Your task to perform on an android device: open chrome and create a bookmark for the current page Image 0: 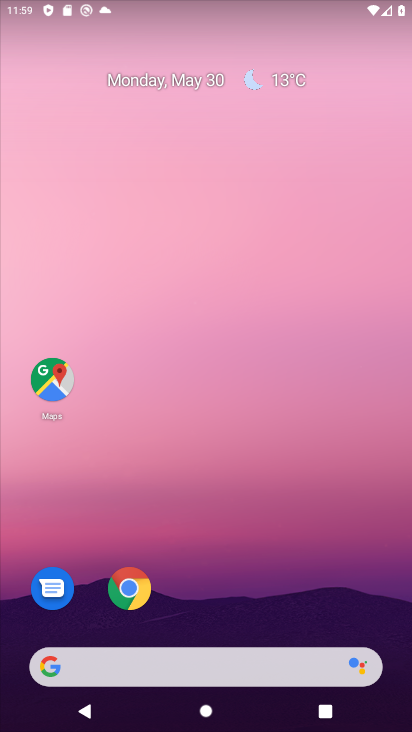
Step 0: click (131, 585)
Your task to perform on an android device: open chrome and create a bookmark for the current page Image 1: 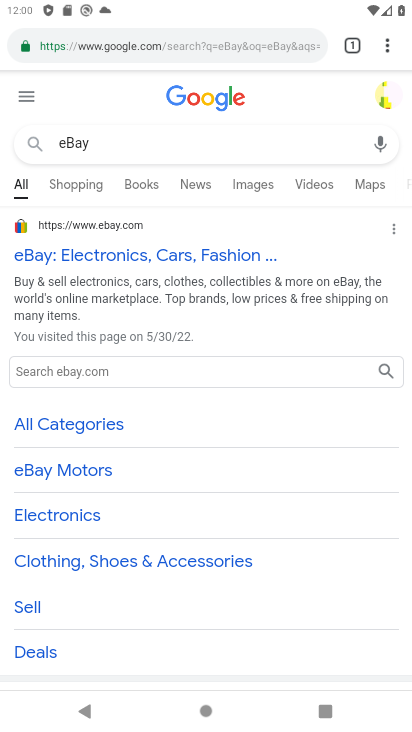
Step 1: click (383, 31)
Your task to perform on an android device: open chrome and create a bookmark for the current page Image 2: 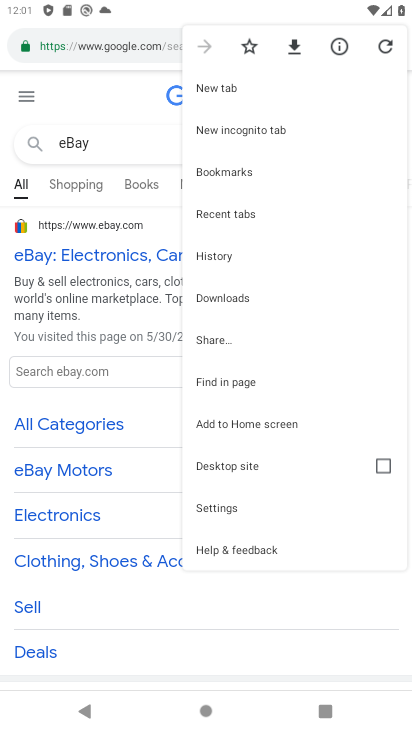
Step 2: click (226, 169)
Your task to perform on an android device: open chrome and create a bookmark for the current page Image 3: 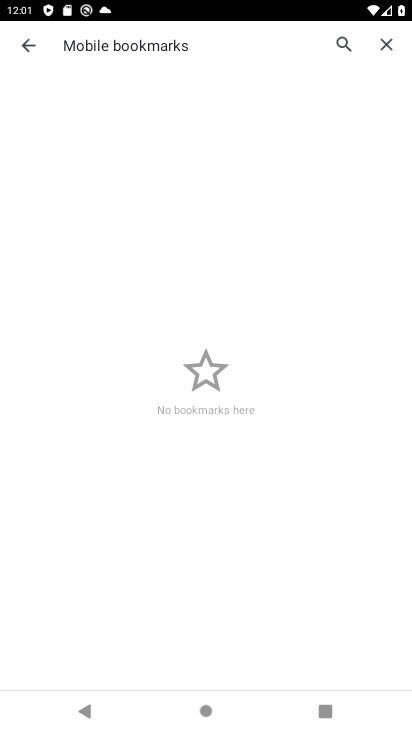
Step 3: click (29, 43)
Your task to perform on an android device: open chrome and create a bookmark for the current page Image 4: 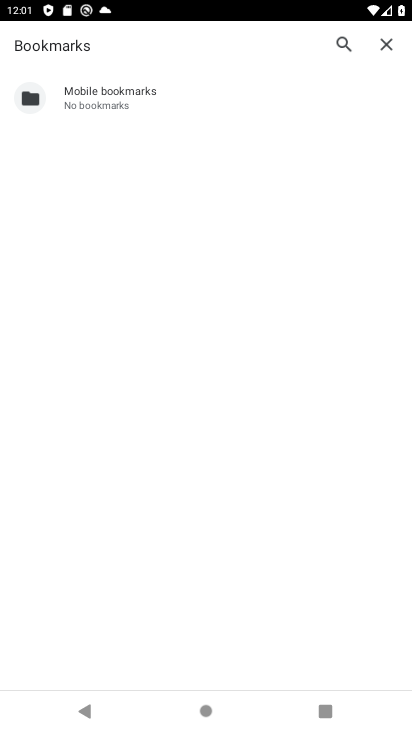
Step 4: press back button
Your task to perform on an android device: open chrome and create a bookmark for the current page Image 5: 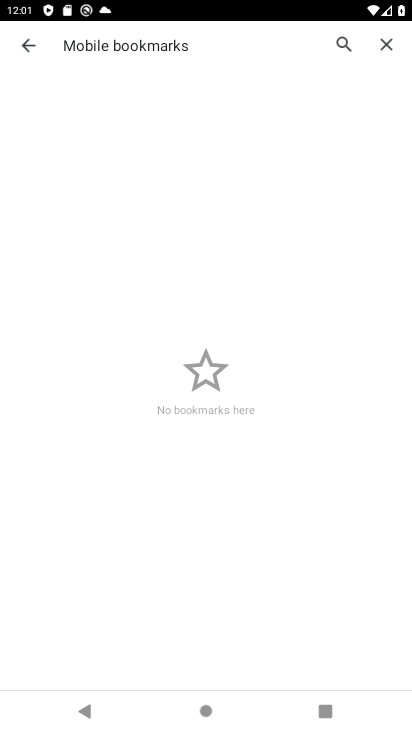
Step 5: press back button
Your task to perform on an android device: open chrome and create a bookmark for the current page Image 6: 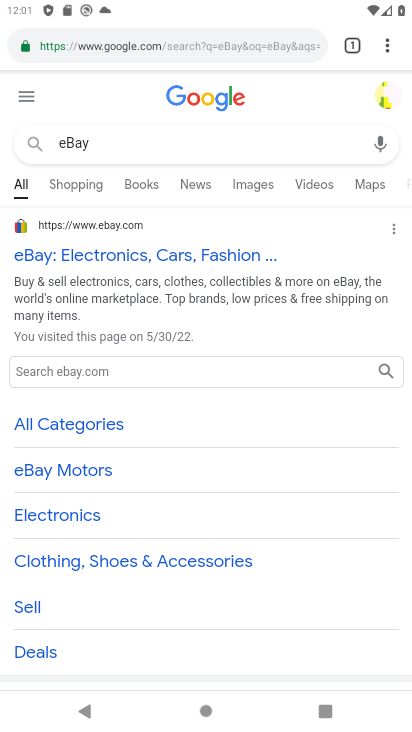
Step 6: click (384, 40)
Your task to perform on an android device: open chrome and create a bookmark for the current page Image 7: 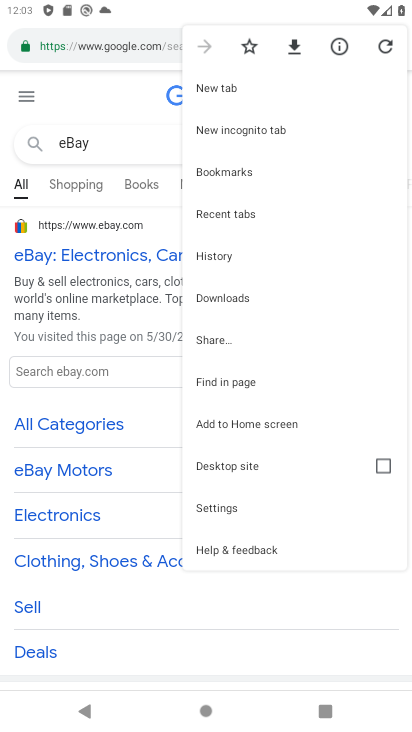
Step 7: click (250, 46)
Your task to perform on an android device: open chrome and create a bookmark for the current page Image 8: 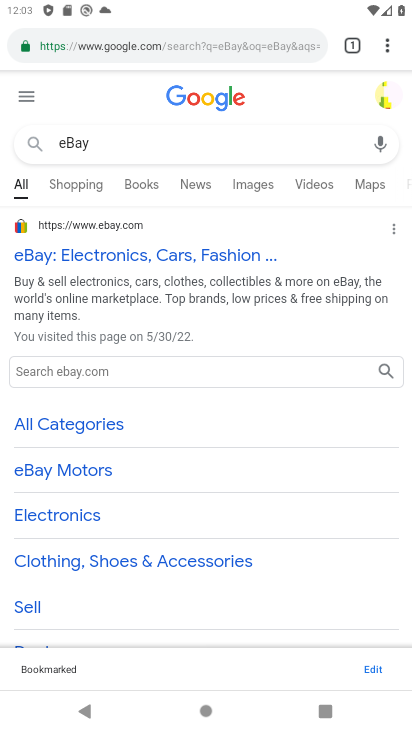
Step 8: task complete